Your task to perform on an android device: turn on data saver in the chrome app Image 0: 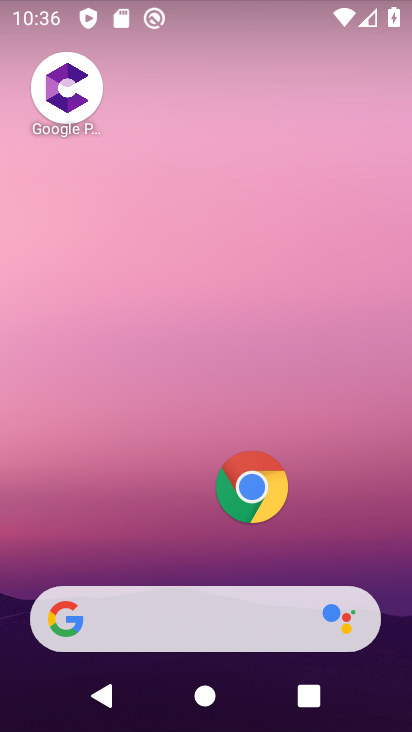
Step 0: click (243, 496)
Your task to perform on an android device: turn on data saver in the chrome app Image 1: 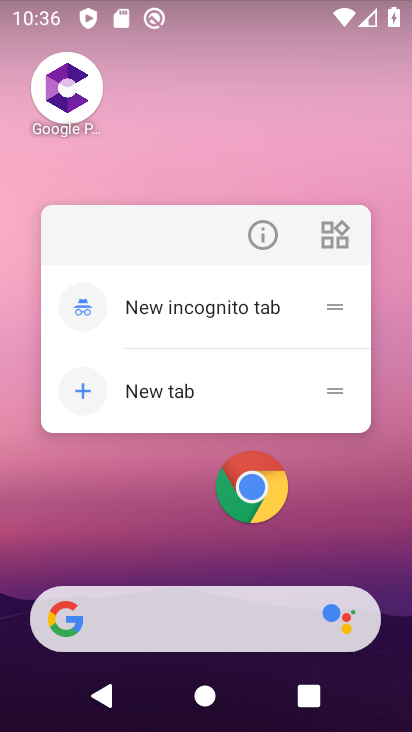
Step 1: click (247, 492)
Your task to perform on an android device: turn on data saver in the chrome app Image 2: 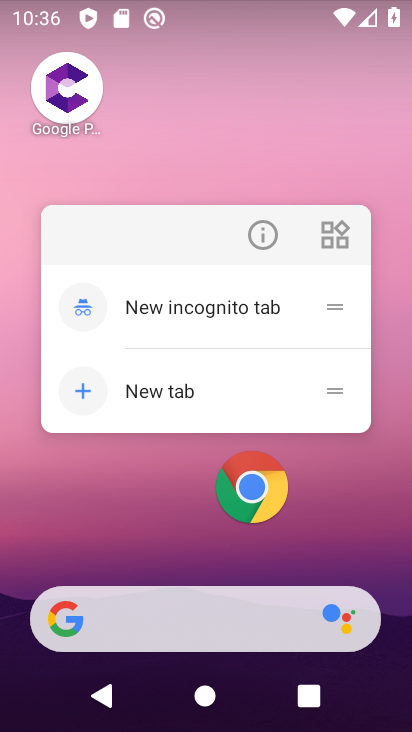
Step 2: click (268, 229)
Your task to perform on an android device: turn on data saver in the chrome app Image 3: 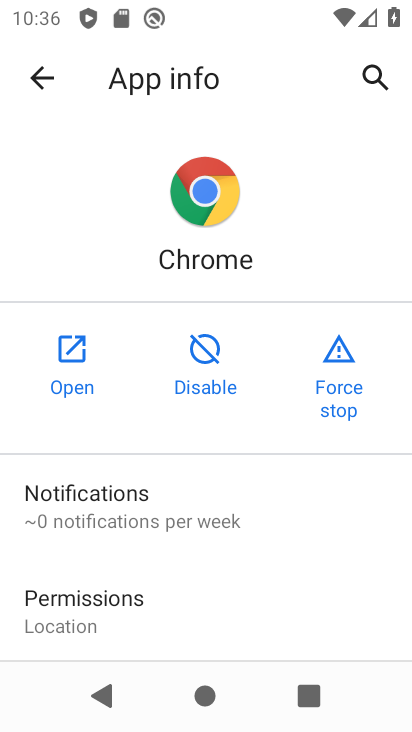
Step 3: click (70, 376)
Your task to perform on an android device: turn on data saver in the chrome app Image 4: 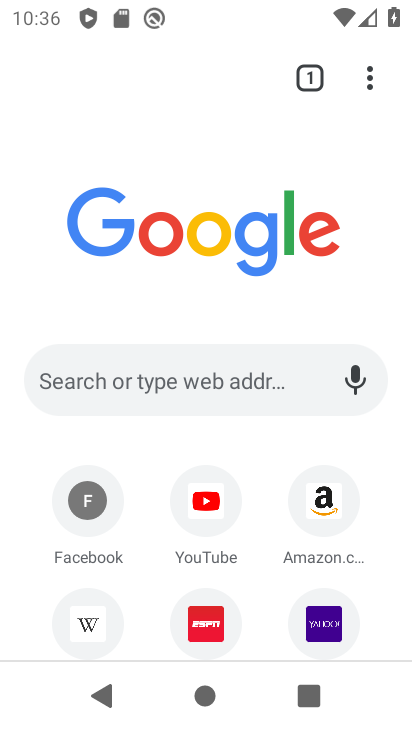
Step 4: click (368, 84)
Your task to perform on an android device: turn on data saver in the chrome app Image 5: 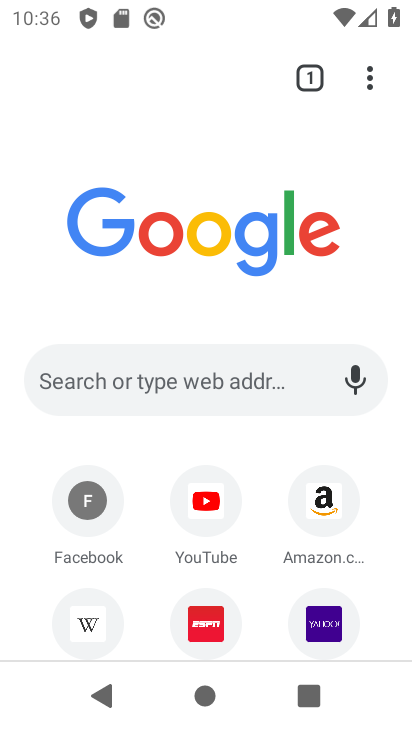
Step 5: click (390, 71)
Your task to perform on an android device: turn on data saver in the chrome app Image 6: 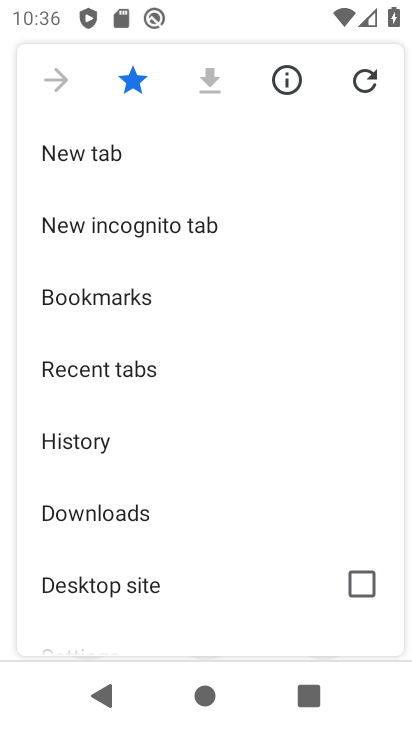
Step 6: drag from (138, 577) to (143, 151)
Your task to perform on an android device: turn on data saver in the chrome app Image 7: 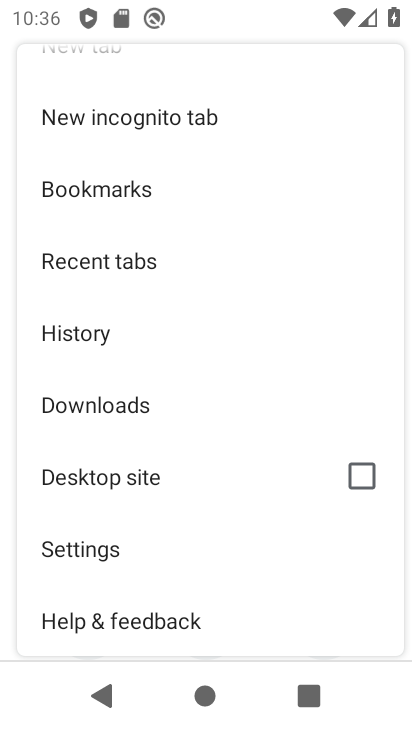
Step 7: click (81, 555)
Your task to perform on an android device: turn on data saver in the chrome app Image 8: 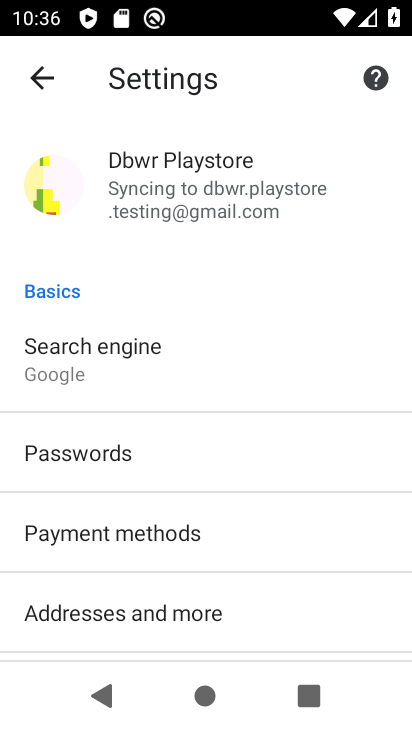
Step 8: drag from (148, 553) to (196, 166)
Your task to perform on an android device: turn on data saver in the chrome app Image 9: 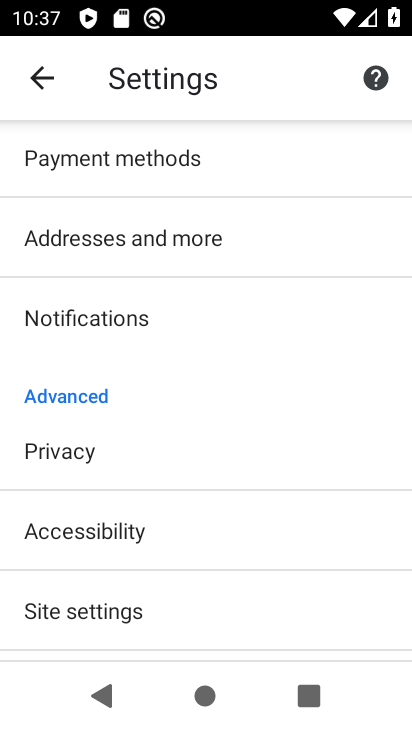
Step 9: drag from (104, 597) to (150, 287)
Your task to perform on an android device: turn on data saver in the chrome app Image 10: 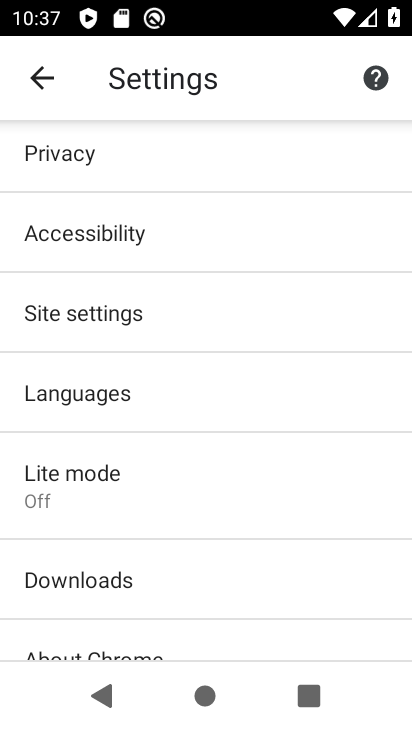
Step 10: click (86, 490)
Your task to perform on an android device: turn on data saver in the chrome app Image 11: 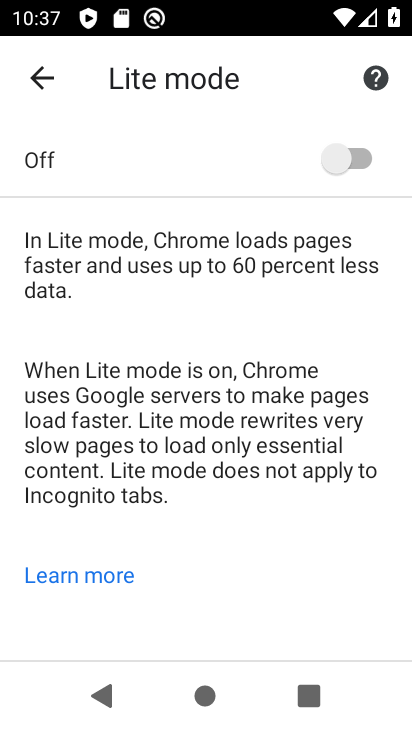
Step 11: click (367, 153)
Your task to perform on an android device: turn on data saver in the chrome app Image 12: 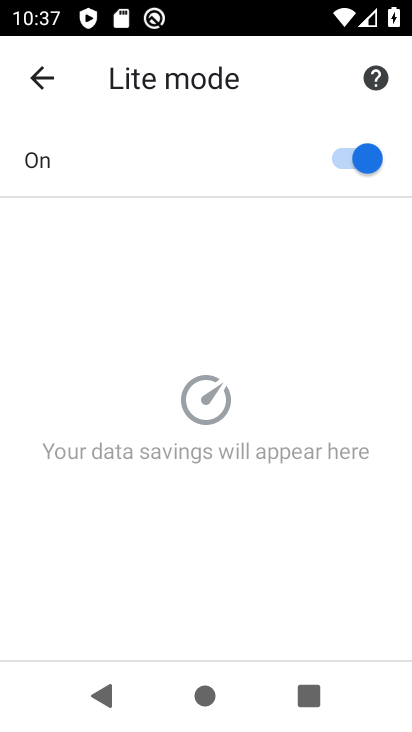
Step 12: task complete